Your task to perform on an android device: uninstall "Microsoft Authenticator" Image 0: 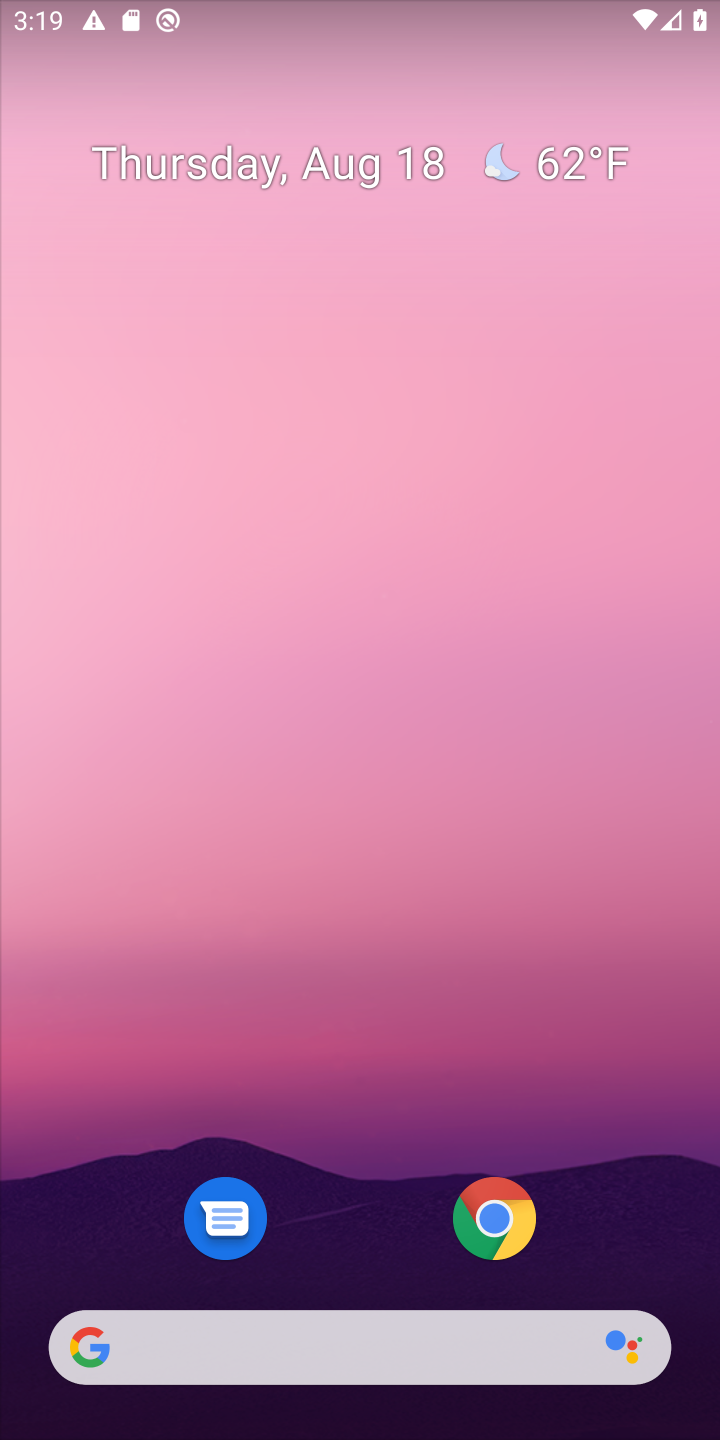
Step 0: drag from (338, 917) to (368, 470)
Your task to perform on an android device: uninstall "Microsoft Authenticator" Image 1: 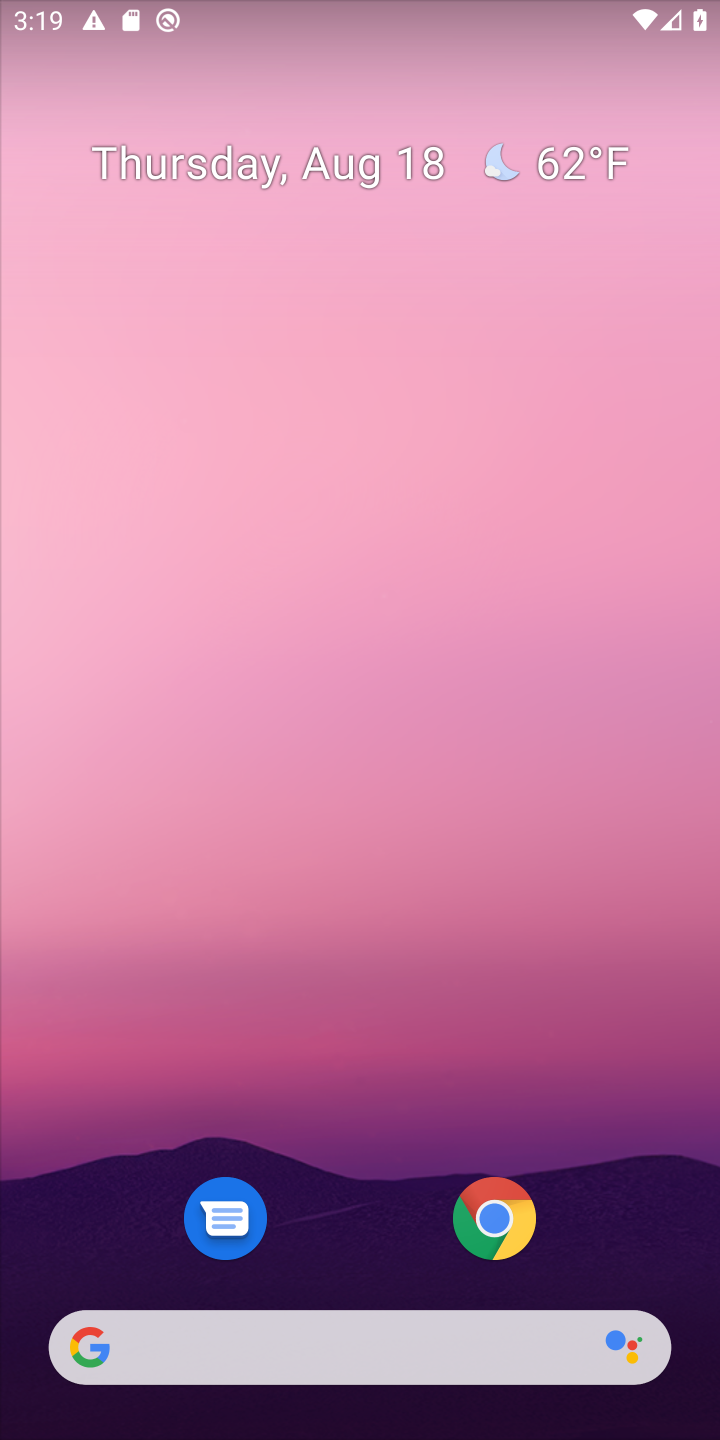
Step 1: drag from (355, 1140) to (344, 435)
Your task to perform on an android device: uninstall "Microsoft Authenticator" Image 2: 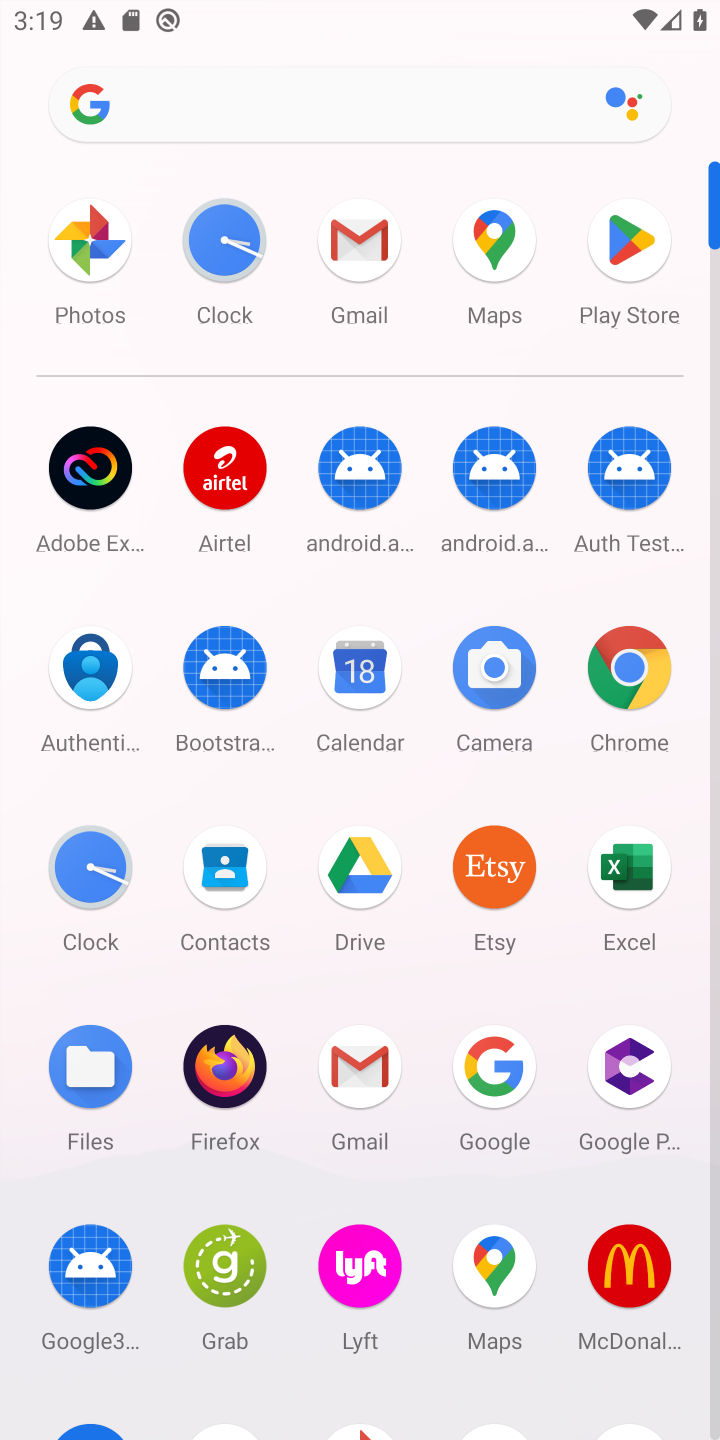
Step 2: click (607, 245)
Your task to perform on an android device: uninstall "Microsoft Authenticator" Image 3: 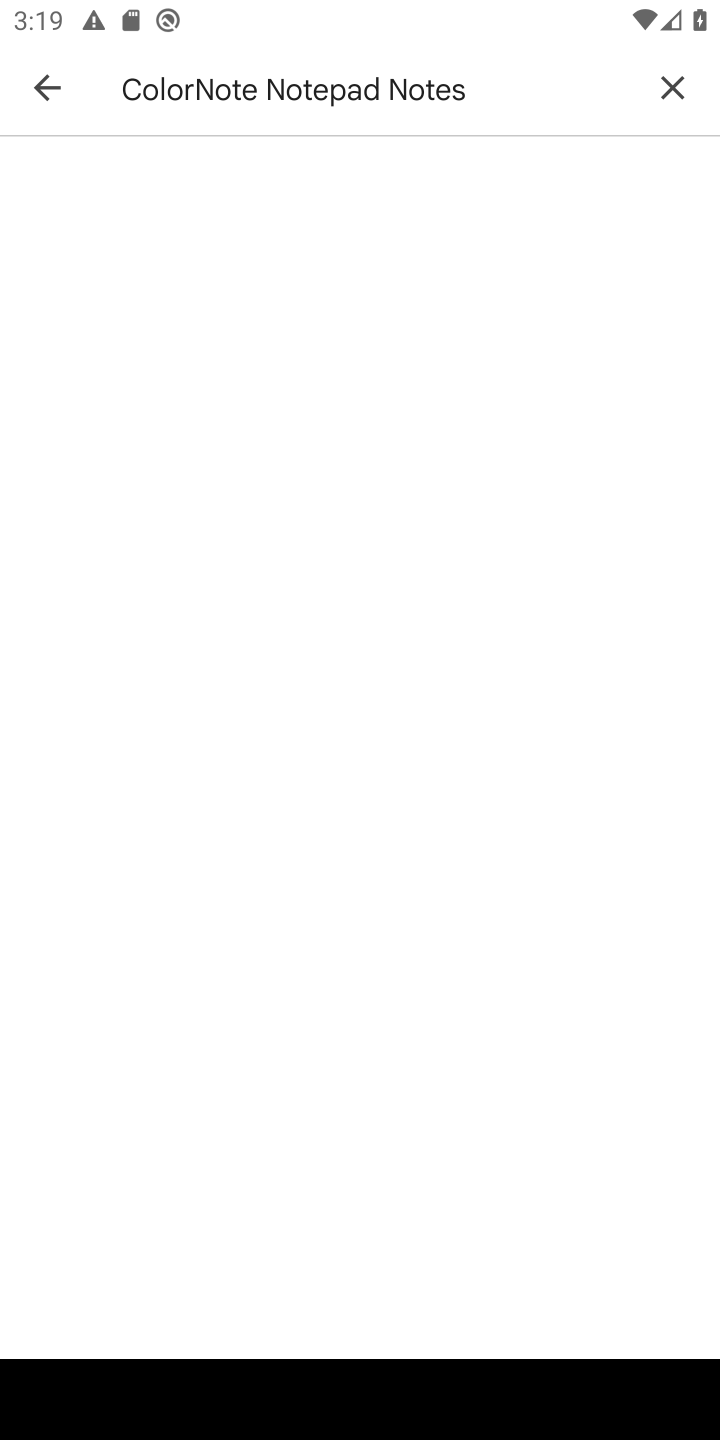
Step 3: click (671, 97)
Your task to perform on an android device: uninstall "Microsoft Authenticator" Image 4: 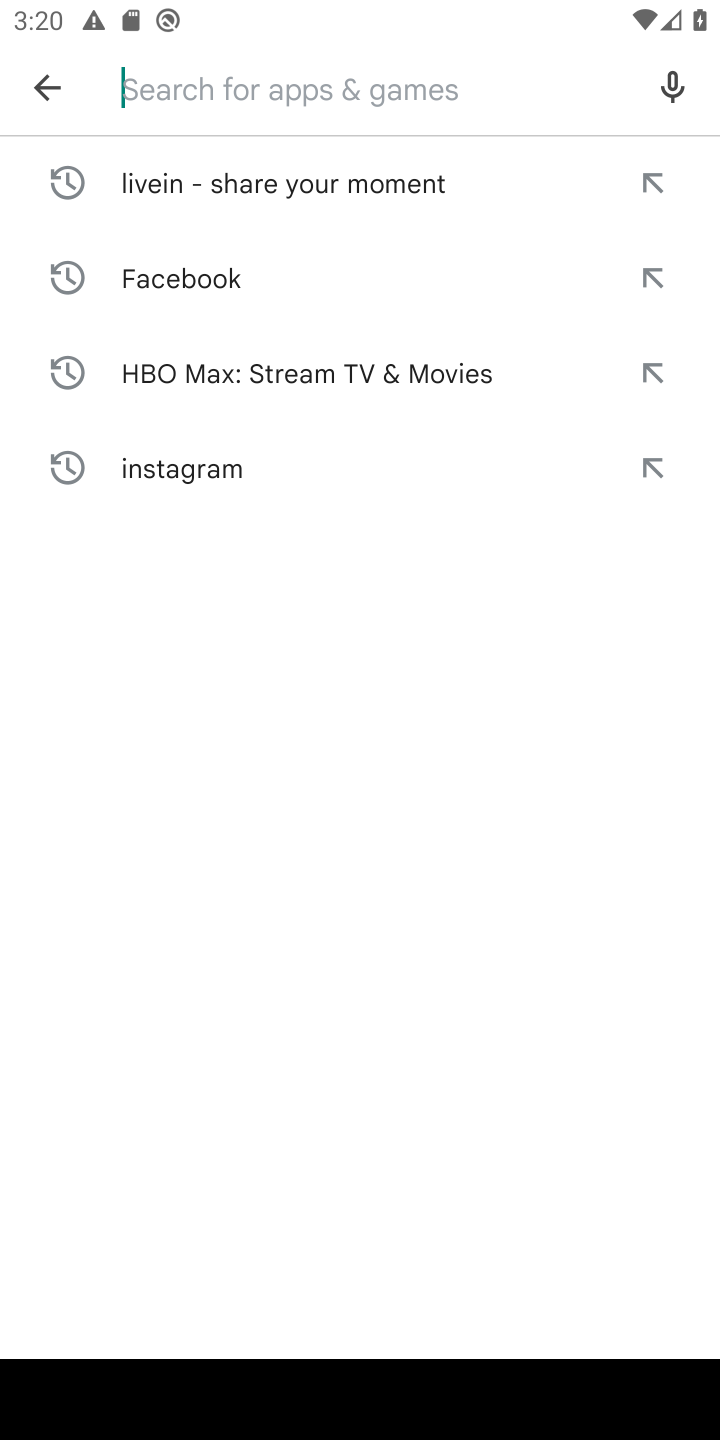
Step 4: type "Microsoft Authenticato"
Your task to perform on an android device: uninstall "Microsoft Authenticator" Image 5: 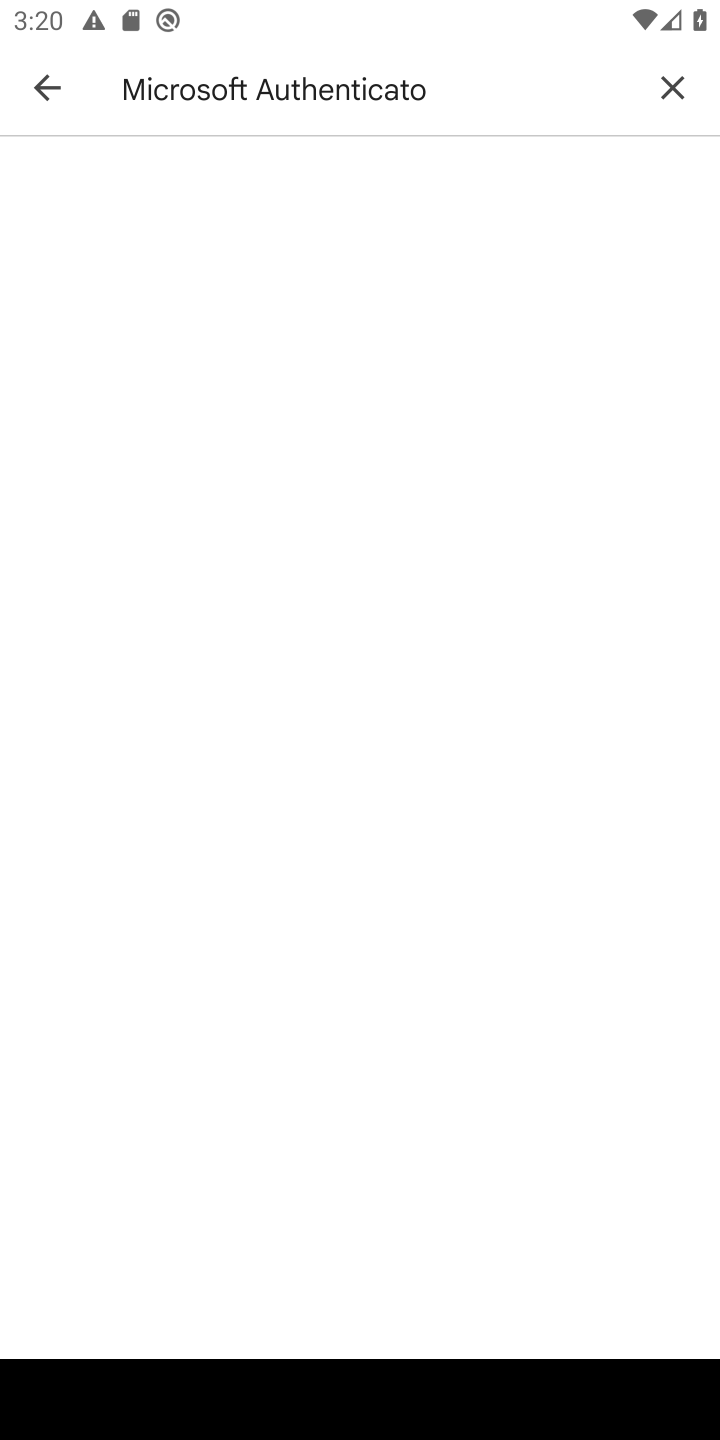
Step 5: task complete